Your task to perform on an android device: toggle pop-ups in chrome Image 0: 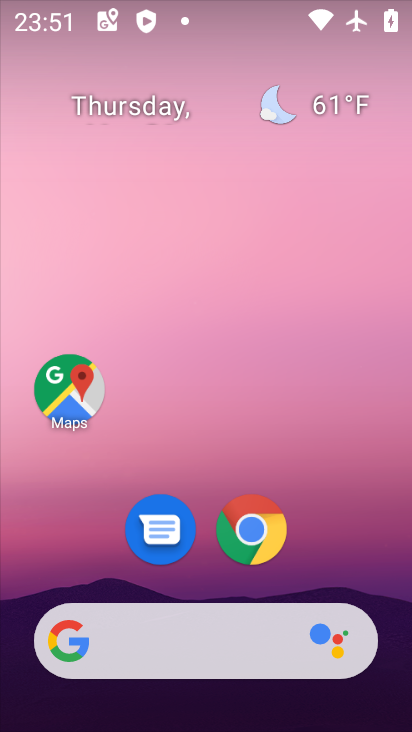
Step 0: click (275, 517)
Your task to perform on an android device: toggle pop-ups in chrome Image 1: 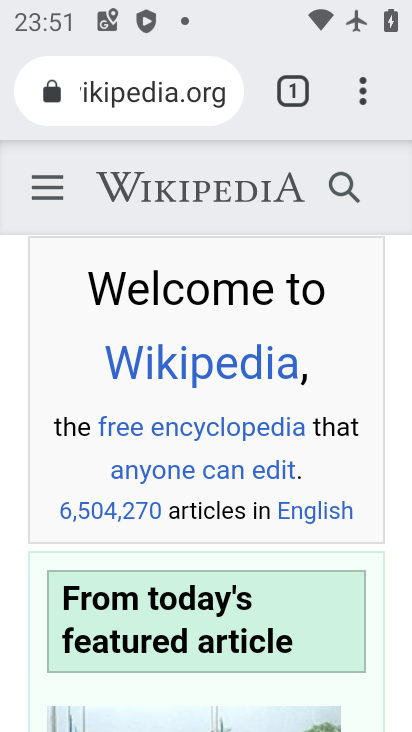
Step 1: click (275, 517)
Your task to perform on an android device: toggle pop-ups in chrome Image 2: 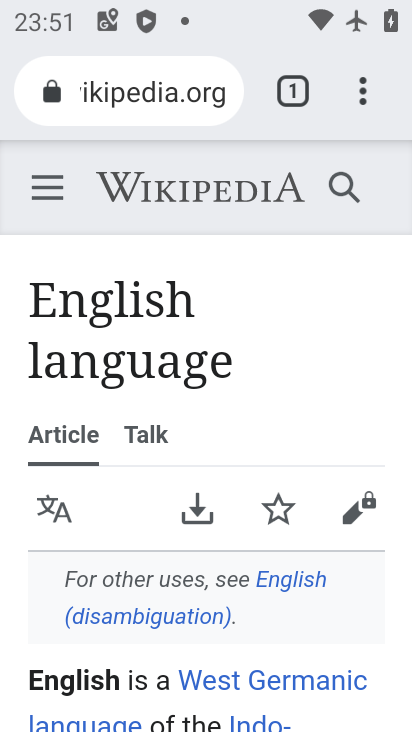
Step 2: click (362, 93)
Your task to perform on an android device: toggle pop-ups in chrome Image 3: 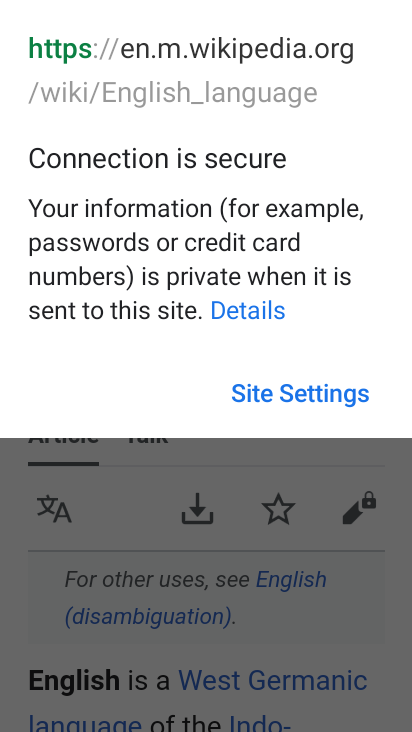
Step 3: click (264, 407)
Your task to perform on an android device: toggle pop-ups in chrome Image 4: 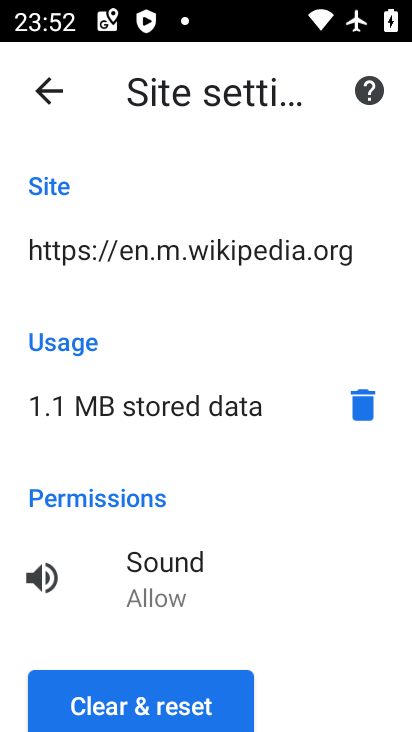
Step 4: click (62, 92)
Your task to perform on an android device: toggle pop-ups in chrome Image 5: 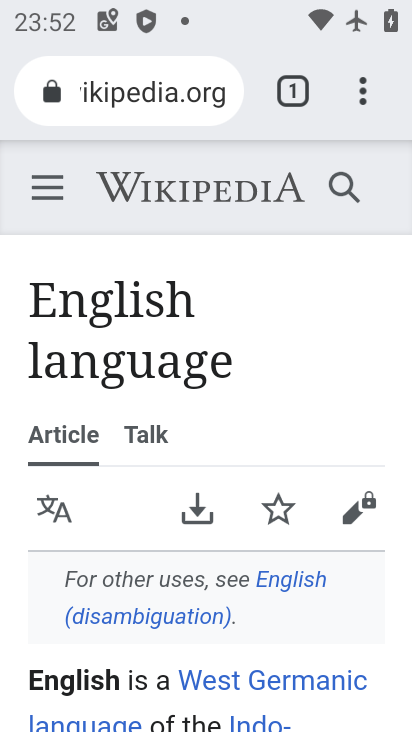
Step 5: click (367, 111)
Your task to perform on an android device: toggle pop-ups in chrome Image 6: 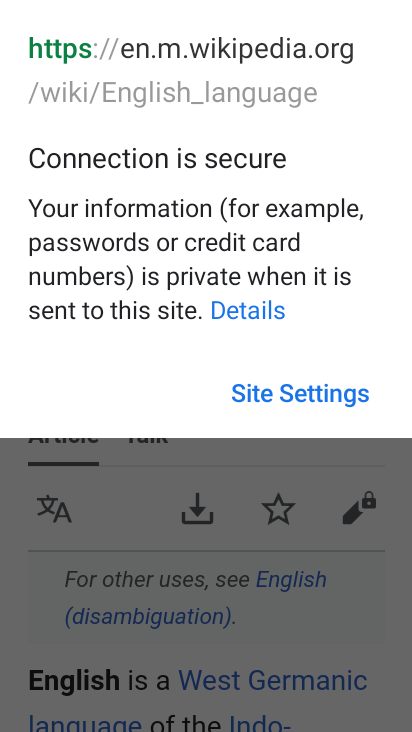
Step 6: click (215, 466)
Your task to perform on an android device: toggle pop-ups in chrome Image 7: 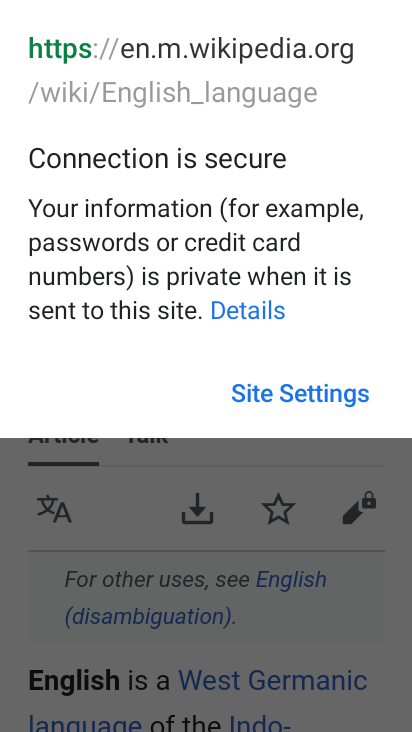
Step 7: click (215, 466)
Your task to perform on an android device: toggle pop-ups in chrome Image 8: 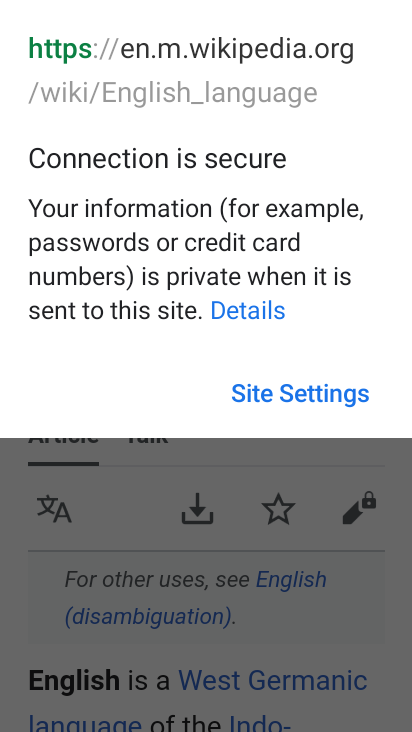
Step 8: press back button
Your task to perform on an android device: toggle pop-ups in chrome Image 9: 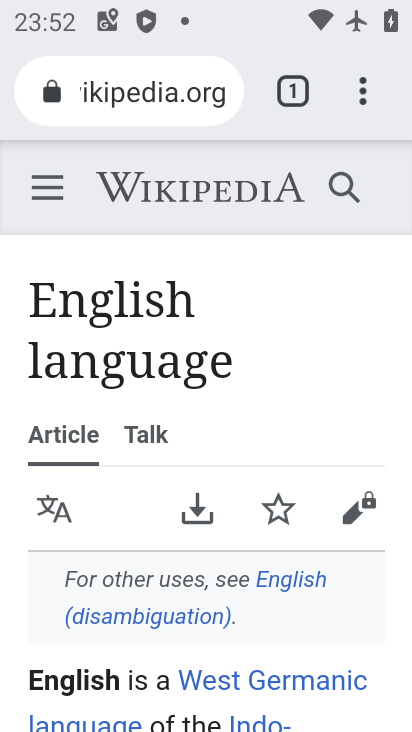
Step 9: click (376, 112)
Your task to perform on an android device: toggle pop-ups in chrome Image 10: 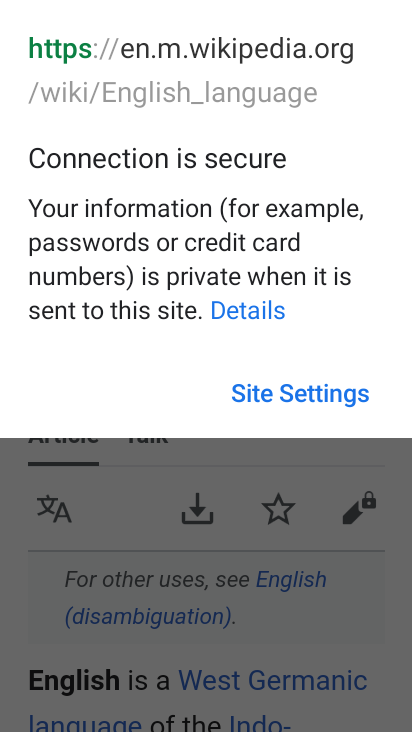
Step 10: click (283, 517)
Your task to perform on an android device: toggle pop-ups in chrome Image 11: 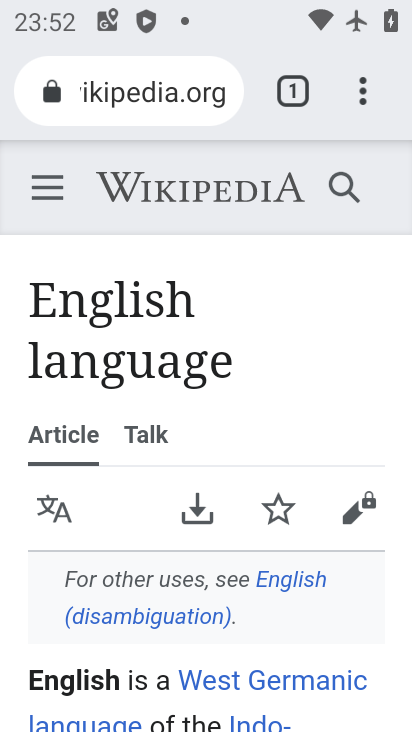
Step 11: click (372, 94)
Your task to perform on an android device: toggle pop-ups in chrome Image 12: 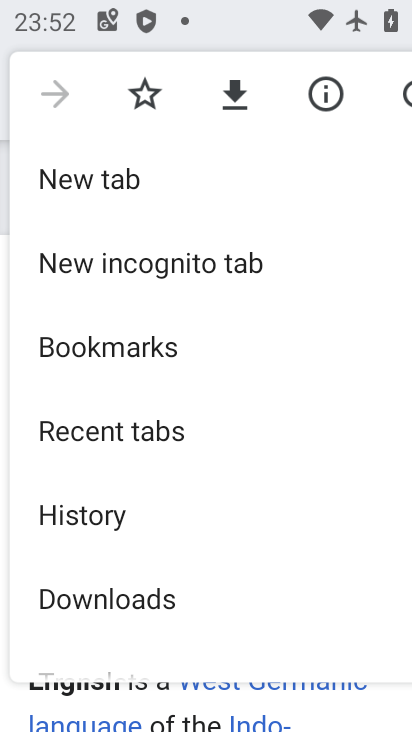
Step 12: drag from (218, 611) to (201, 248)
Your task to perform on an android device: toggle pop-ups in chrome Image 13: 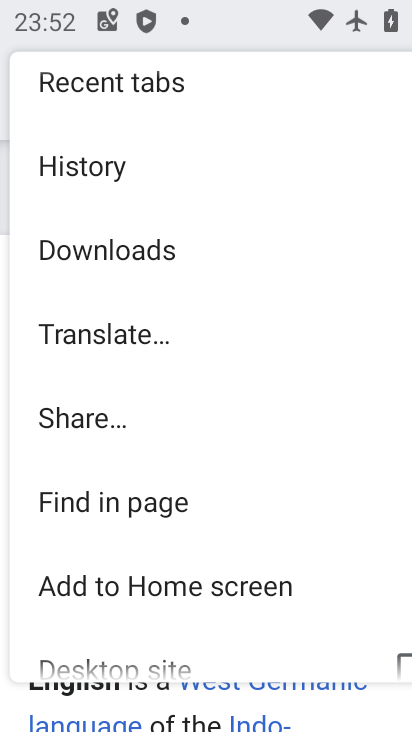
Step 13: drag from (211, 624) to (225, 147)
Your task to perform on an android device: toggle pop-ups in chrome Image 14: 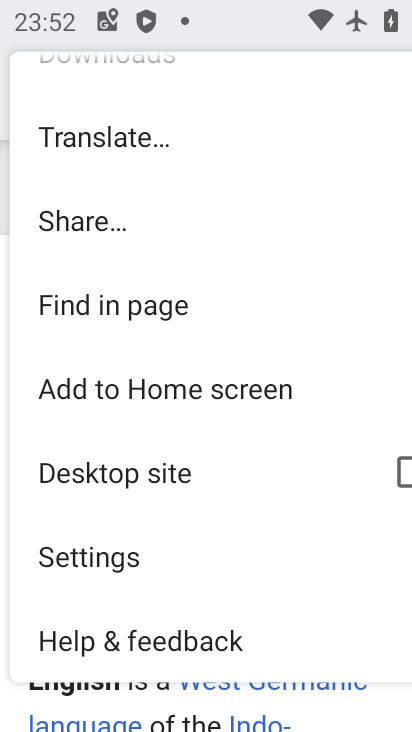
Step 14: click (150, 562)
Your task to perform on an android device: toggle pop-ups in chrome Image 15: 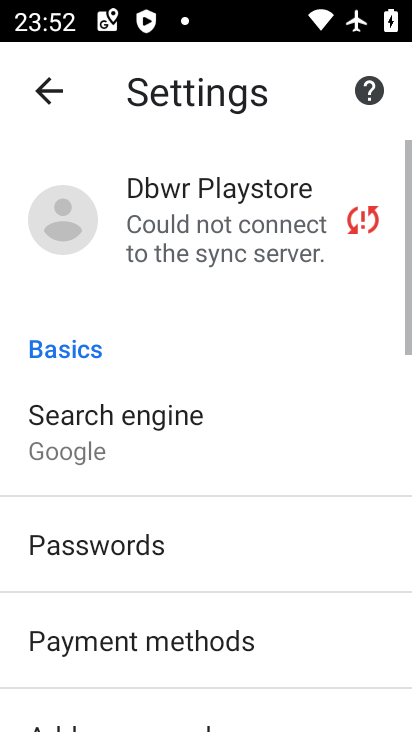
Step 15: drag from (196, 636) to (204, 153)
Your task to perform on an android device: toggle pop-ups in chrome Image 16: 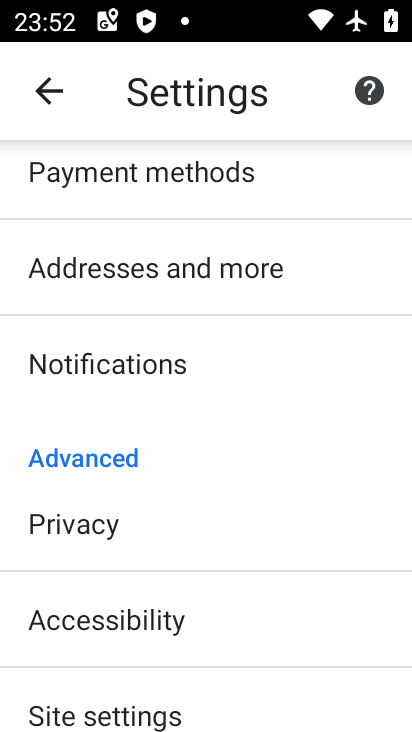
Step 16: drag from (182, 688) to (228, 340)
Your task to perform on an android device: toggle pop-ups in chrome Image 17: 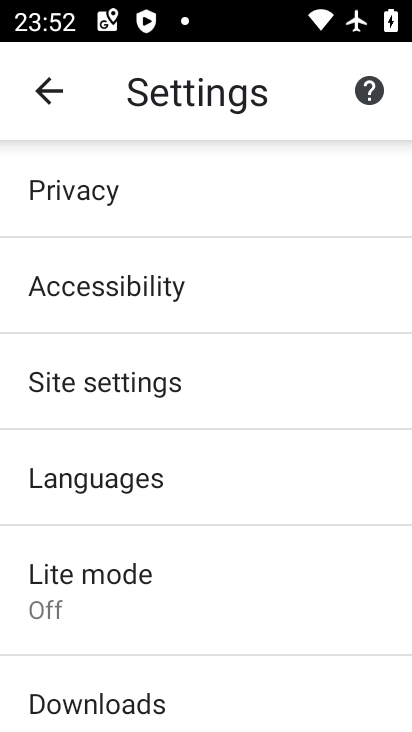
Step 17: click (219, 396)
Your task to perform on an android device: toggle pop-ups in chrome Image 18: 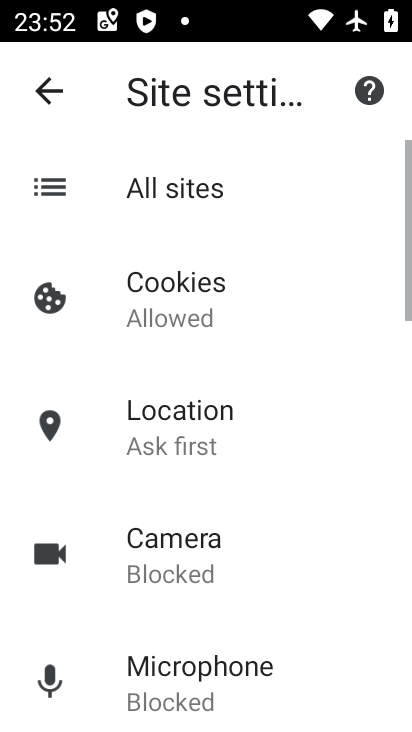
Step 18: drag from (242, 615) to (255, 78)
Your task to perform on an android device: toggle pop-ups in chrome Image 19: 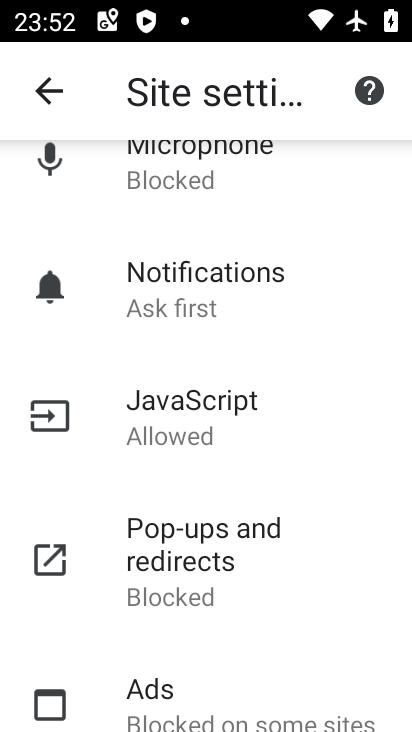
Step 19: click (230, 542)
Your task to perform on an android device: toggle pop-ups in chrome Image 20: 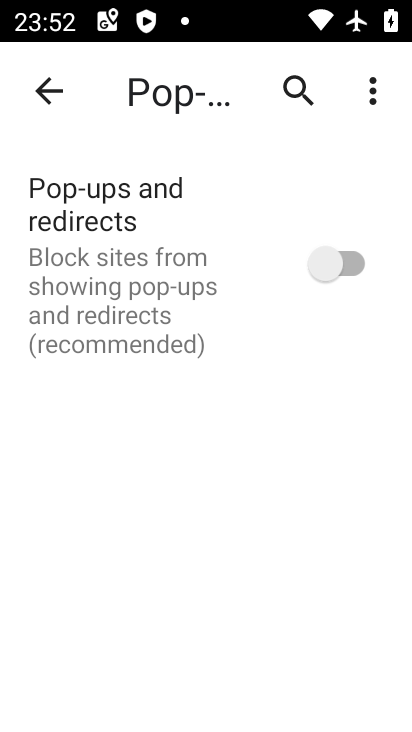
Step 20: click (321, 257)
Your task to perform on an android device: toggle pop-ups in chrome Image 21: 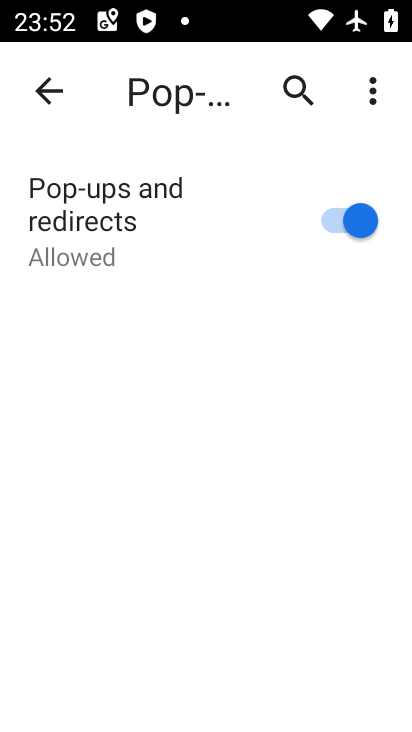
Step 21: task complete